Your task to perform on an android device: change the clock display to analog Image 0: 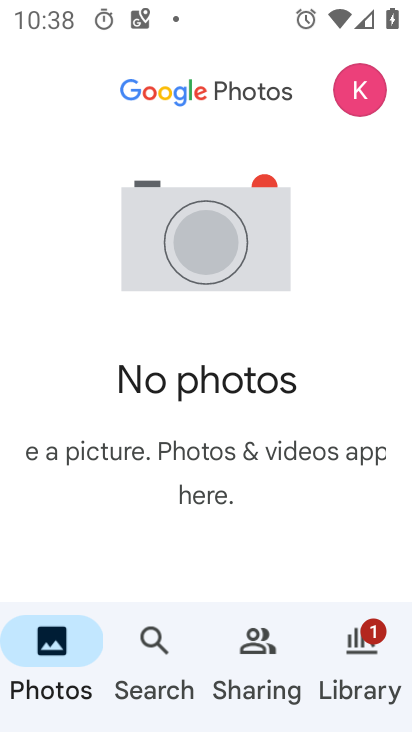
Step 0: press home button
Your task to perform on an android device: change the clock display to analog Image 1: 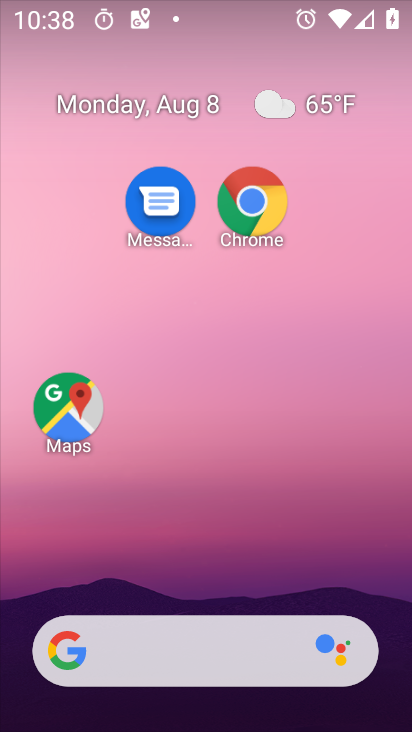
Step 1: drag from (245, 593) to (229, 91)
Your task to perform on an android device: change the clock display to analog Image 2: 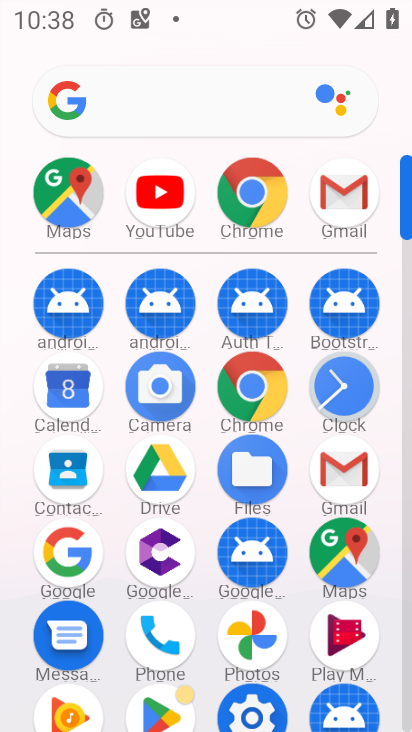
Step 2: click (342, 379)
Your task to perform on an android device: change the clock display to analog Image 3: 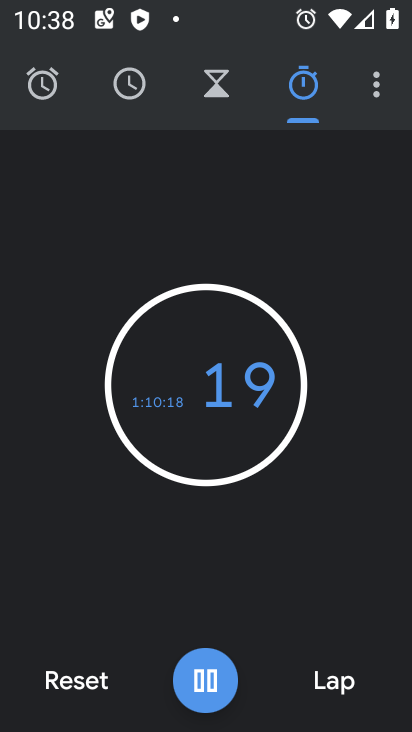
Step 3: click (74, 678)
Your task to perform on an android device: change the clock display to analog Image 4: 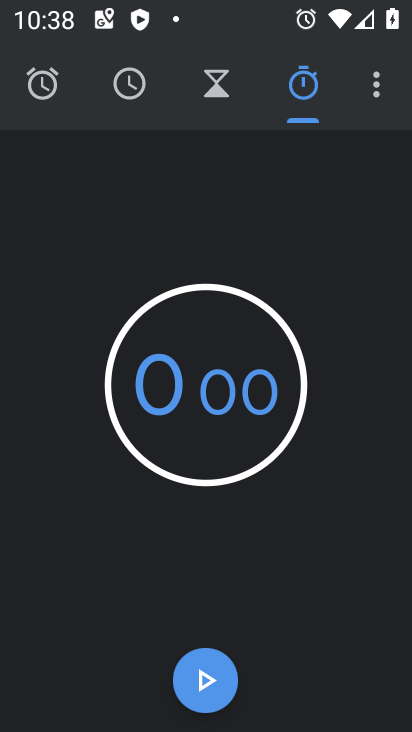
Step 4: click (378, 78)
Your task to perform on an android device: change the clock display to analog Image 5: 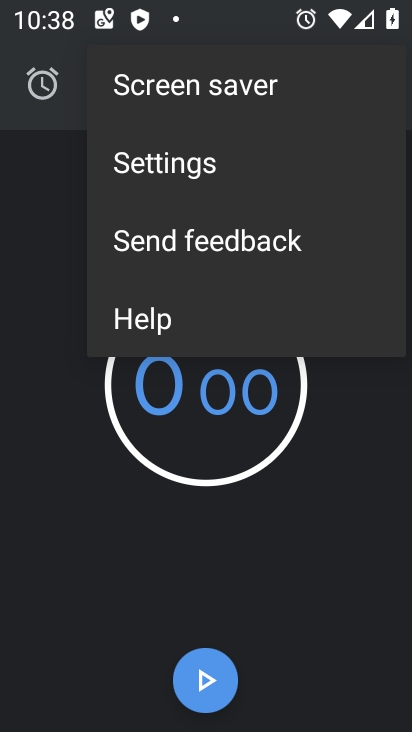
Step 5: click (221, 171)
Your task to perform on an android device: change the clock display to analog Image 6: 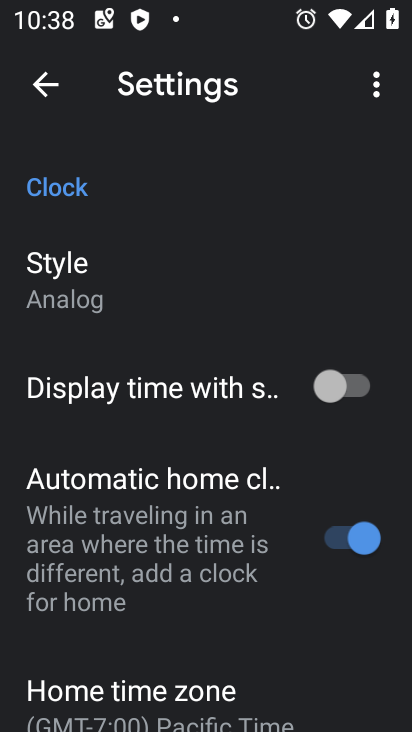
Step 6: click (139, 285)
Your task to perform on an android device: change the clock display to analog Image 7: 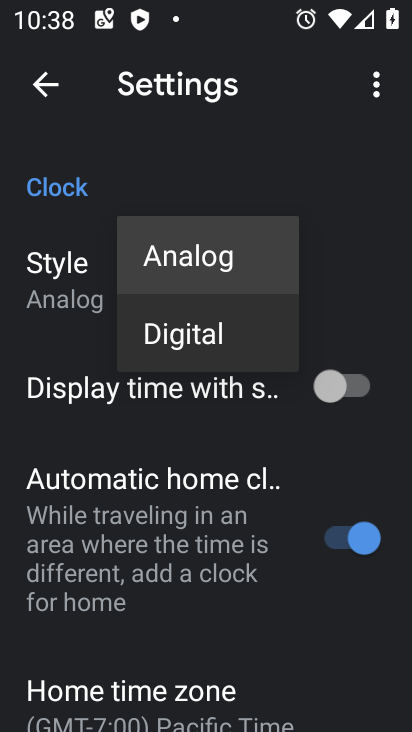
Step 7: click (194, 268)
Your task to perform on an android device: change the clock display to analog Image 8: 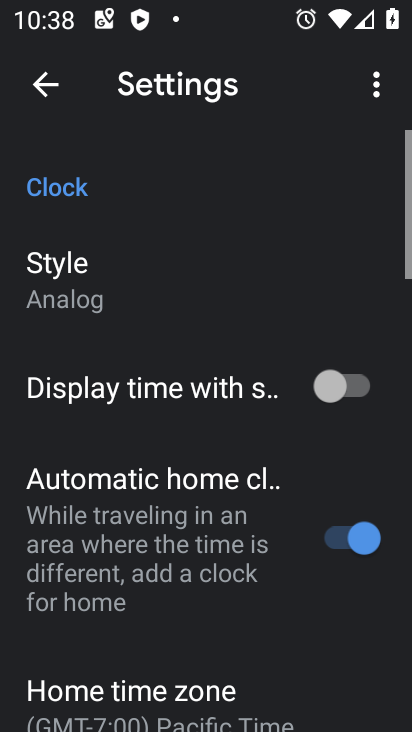
Step 8: task complete